Your task to perform on an android device: turn on location history Image 0: 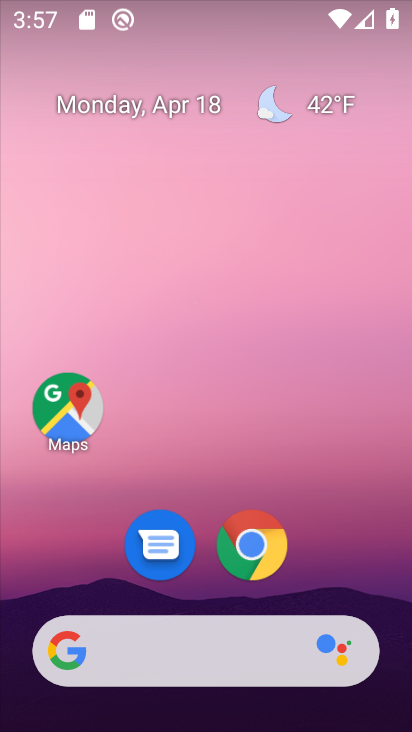
Step 0: drag from (329, 572) to (335, 156)
Your task to perform on an android device: turn on location history Image 1: 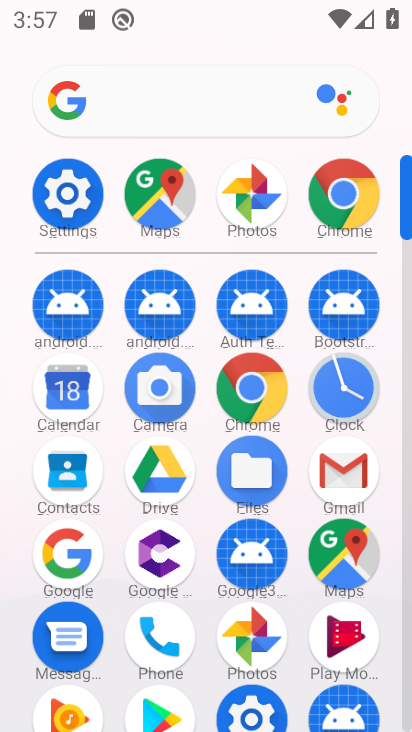
Step 1: click (70, 192)
Your task to perform on an android device: turn on location history Image 2: 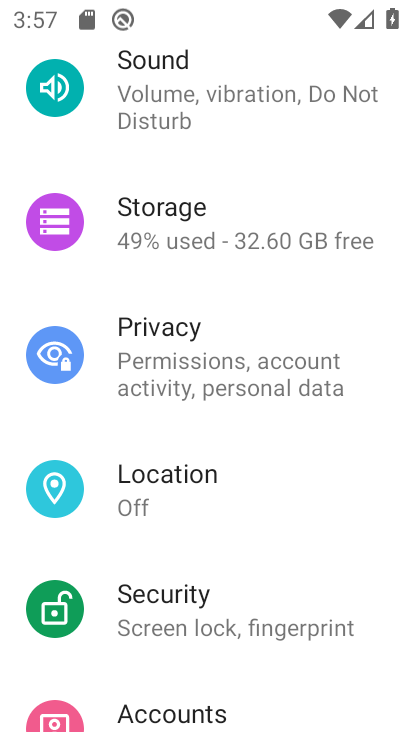
Step 2: drag from (364, 519) to (367, 369)
Your task to perform on an android device: turn on location history Image 3: 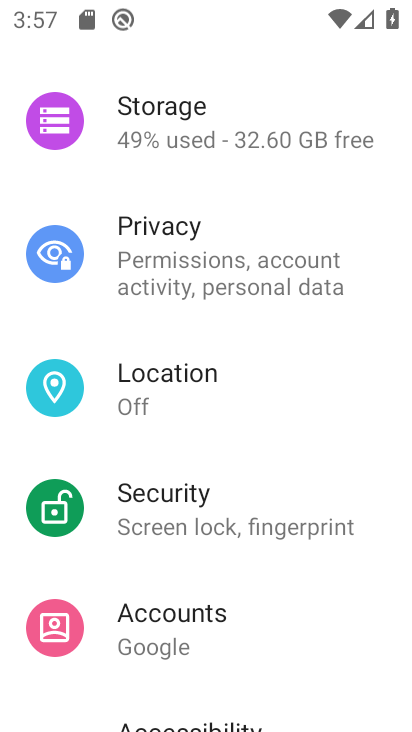
Step 3: drag from (345, 612) to (362, 374)
Your task to perform on an android device: turn on location history Image 4: 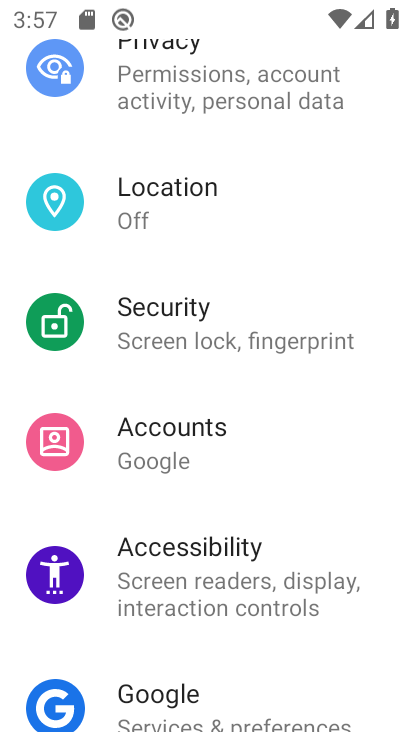
Step 4: drag from (344, 652) to (354, 409)
Your task to perform on an android device: turn on location history Image 5: 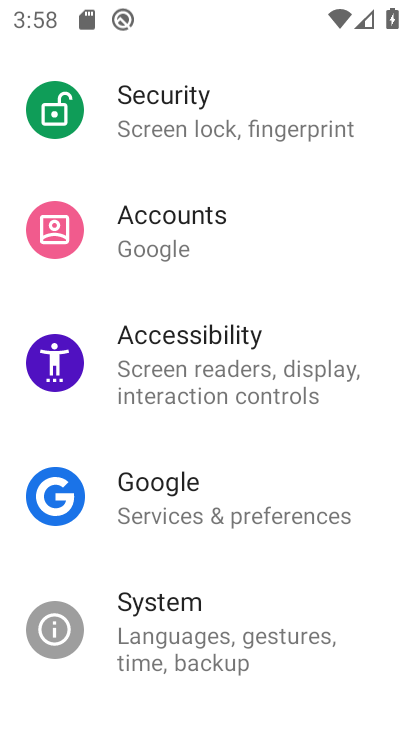
Step 5: drag from (347, 657) to (358, 399)
Your task to perform on an android device: turn on location history Image 6: 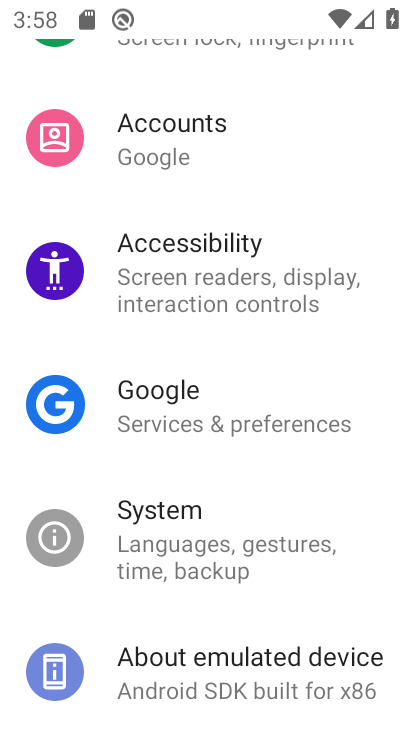
Step 6: drag from (375, 254) to (370, 489)
Your task to perform on an android device: turn on location history Image 7: 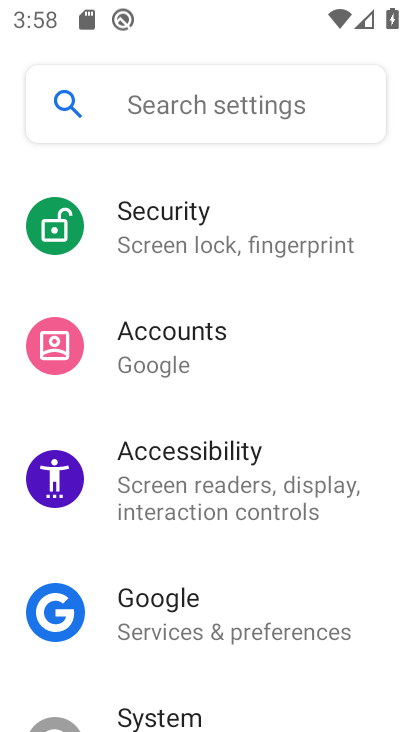
Step 7: drag from (372, 270) to (368, 484)
Your task to perform on an android device: turn on location history Image 8: 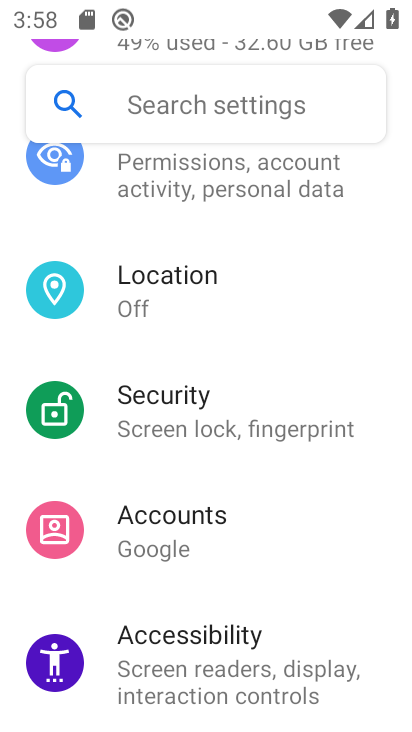
Step 8: drag from (373, 269) to (373, 492)
Your task to perform on an android device: turn on location history Image 9: 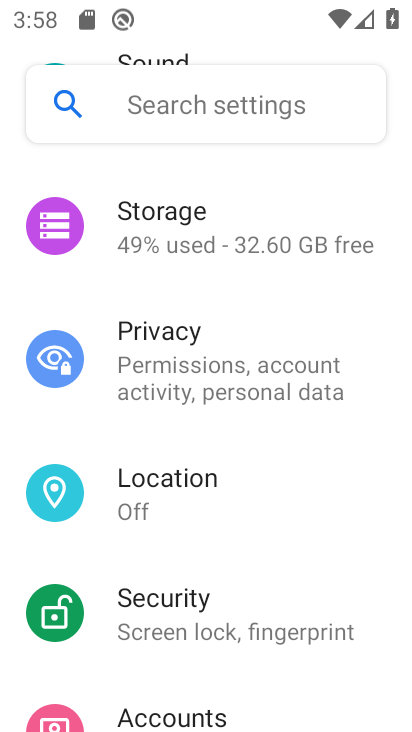
Step 9: drag from (368, 298) to (371, 434)
Your task to perform on an android device: turn on location history Image 10: 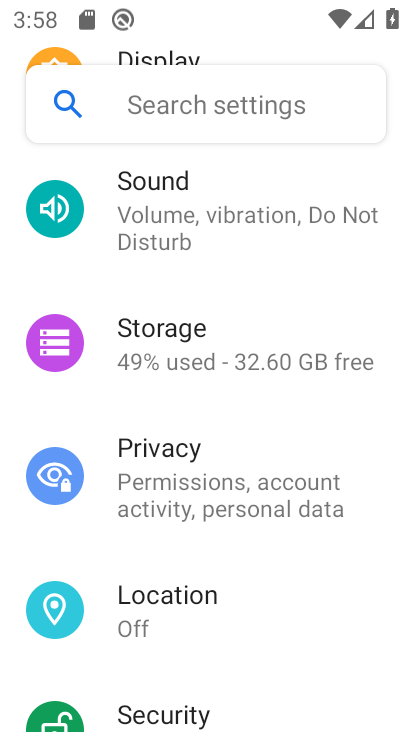
Step 10: click (183, 613)
Your task to perform on an android device: turn on location history Image 11: 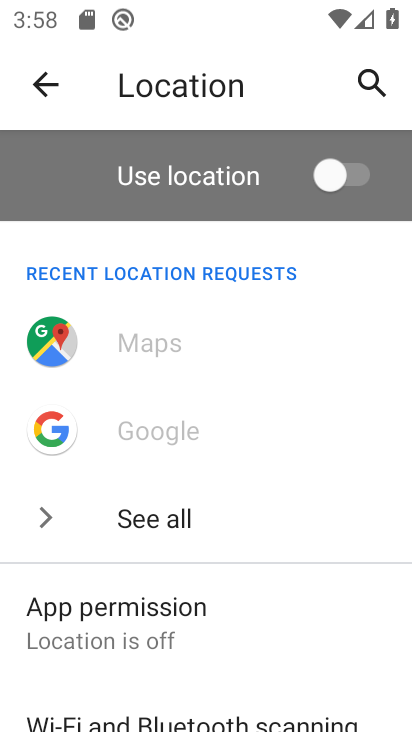
Step 11: drag from (281, 615) to (289, 366)
Your task to perform on an android device: turn on location history Image 12: 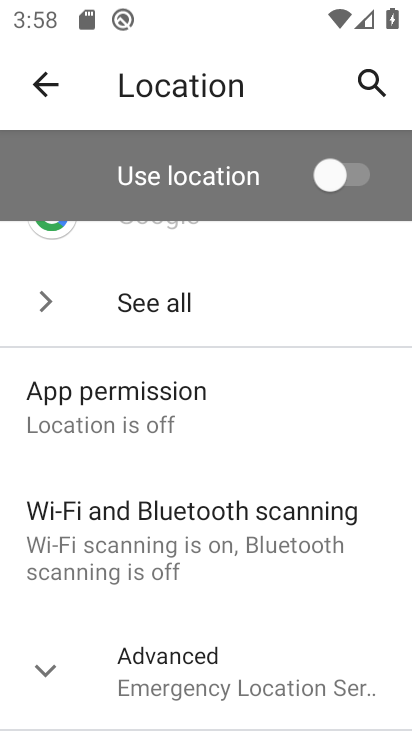
Step 12: drag from (284, 619) to (291, 442)
Your task to perform on an android device: turn on location history Image 13: 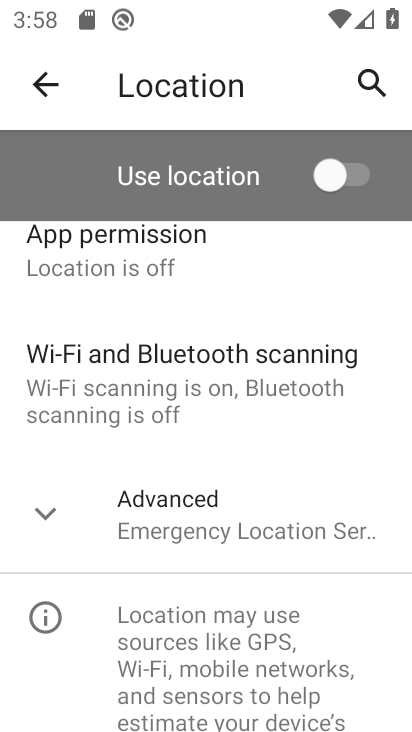
Step 13: click (236, 523)
Your task to perform on an android device: turn on location history Image 14: 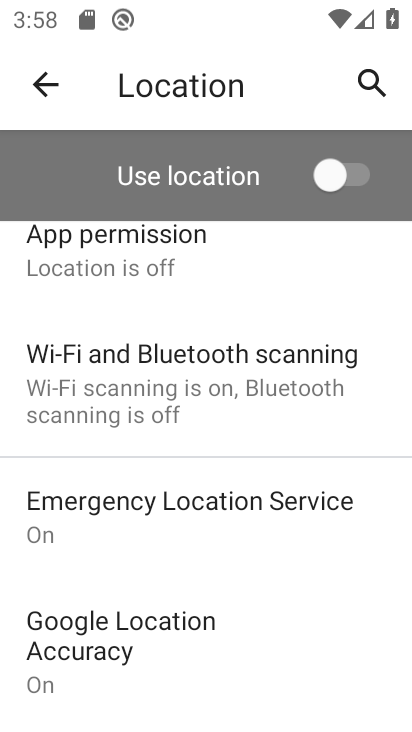
Step 14: task complete